Your task to perform on an android device: Open calendar and show me the first week of next month Image 0: 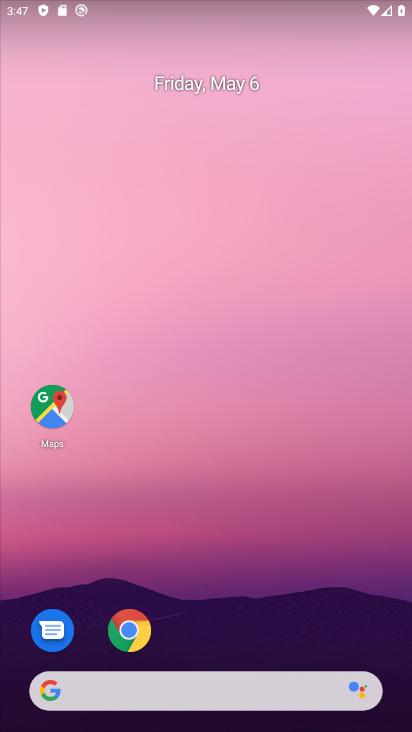
Step 0: drag from (144, 653) to (267, 140)
Your task to perform on an android device: Open calendar and show me the first week of next month Image 1: 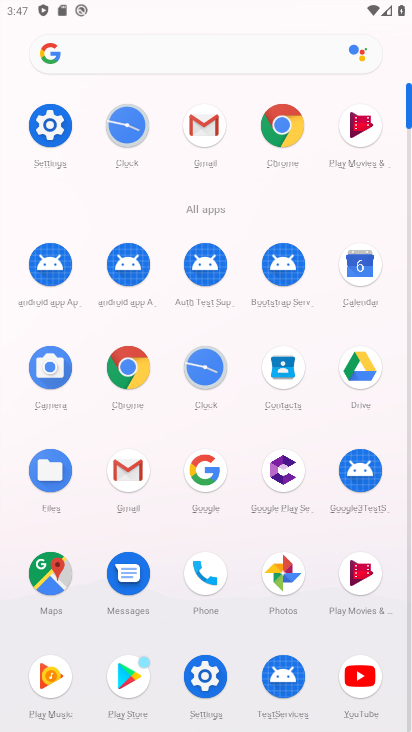
Step 1: click (360, 263)
Your task to perform on an android device: Open calendar and show me the first week of next month Image 2: 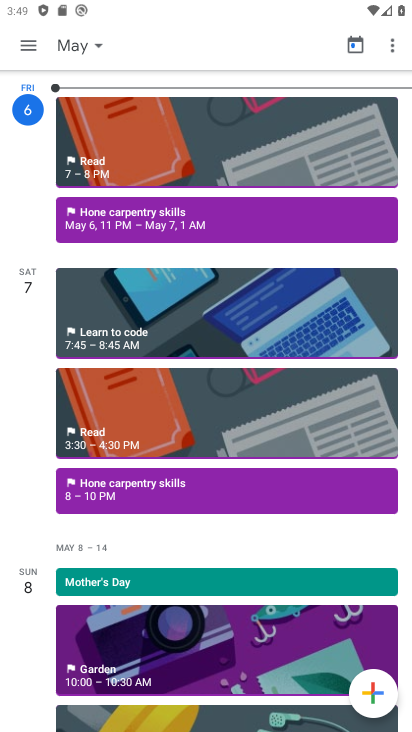
Step 2: click (88, 47)
Your task to perform on an android device: Open calendar and show me the first week of next month Image 3: 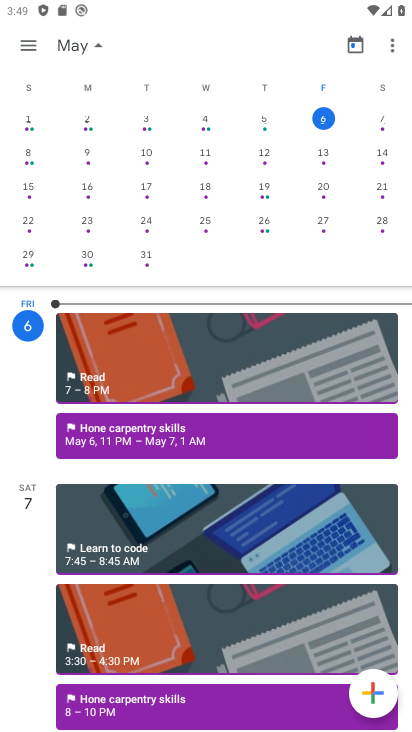
Step 3: task complete